Your task to perform on an android device: Go to battery settings Image 0: 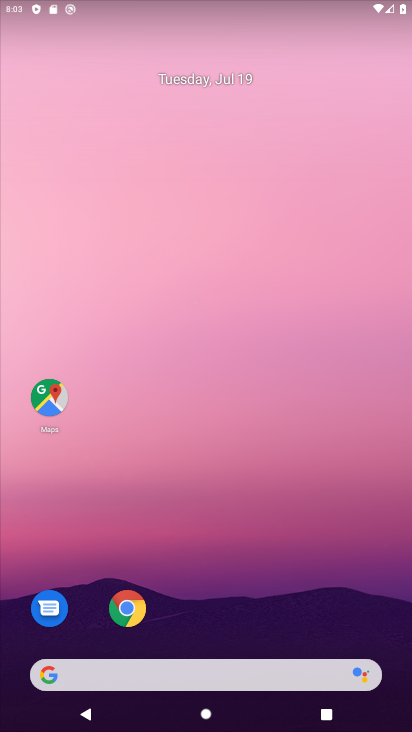
Step 0: drag from (204, 663) to (220, 74)
Your task to perform on an android device: Go to battery settings Image 1: 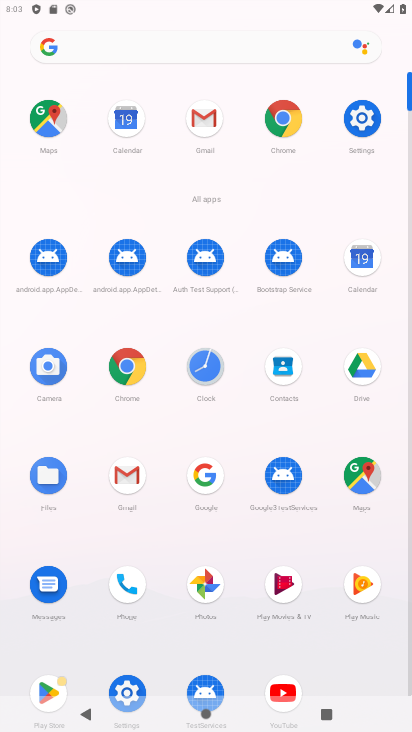
Step 1: click (376, 143)
Your task to perform on an android device: Go to battery settings Image 2: 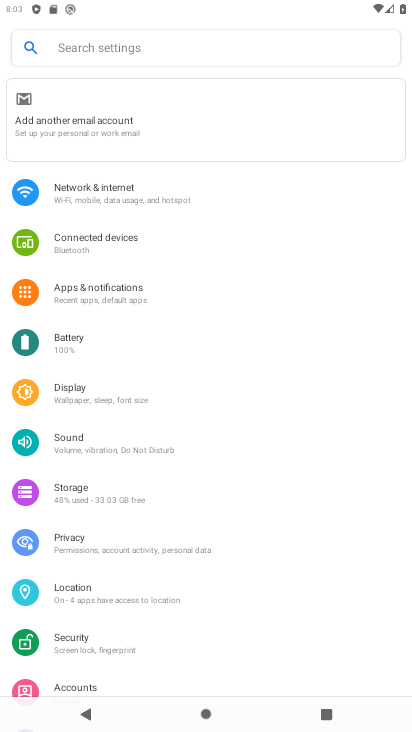
Step 2: click (90, 344)
Your task to perform on an android device: Go to battery settings Image 3: 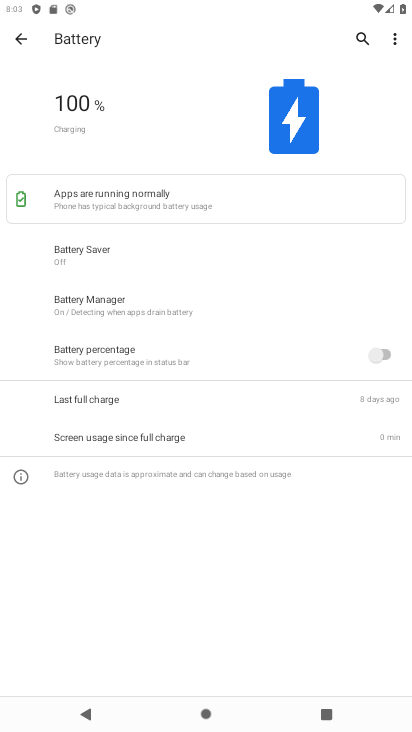
Step 3: task complete